Your task to perform on an android device: open wifi settings Image 0: 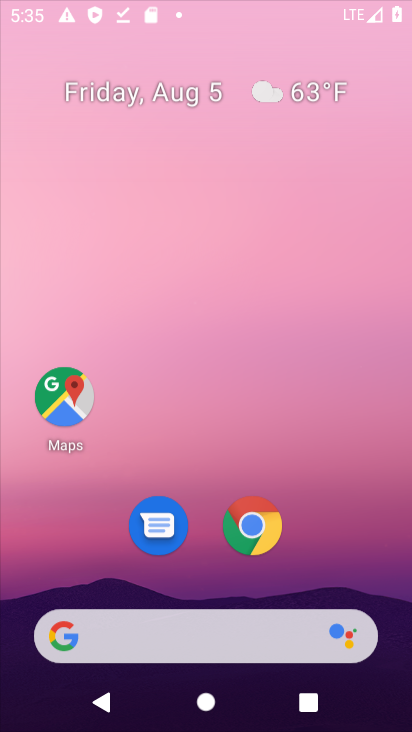
Step 0: drag from (194, 456) to (193, 233)
Your task to perform on an android device: open wifi settings Image 1: 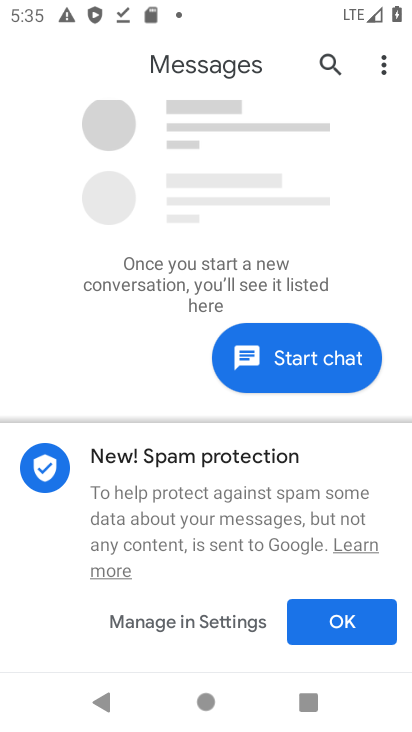
Step 1: drag from (216, 421) to (226, 124)
Your task to perform on an android device: open wifi settings Image 2: 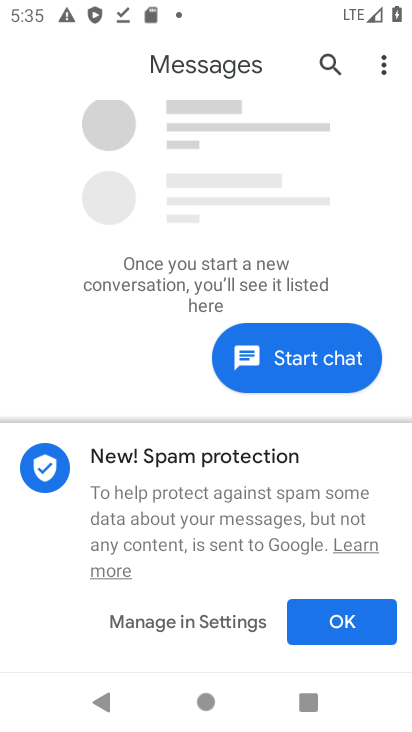
Step 2: press home button
Your task to perform on an android device: open wifi settings Image 3: 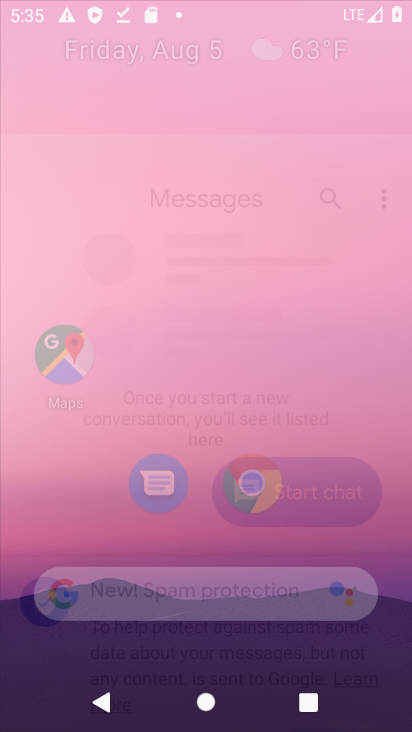
Step 3: click (189, 161)
Your task to perform on an android device: open wifi settings Image 4: 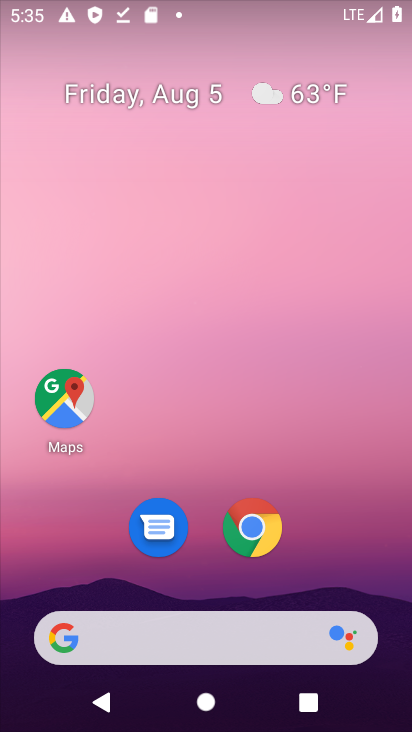
Step 4: drag from (231, 585) to (236, 276)
Your task to perform on an android device: open wifi settings Image 5: 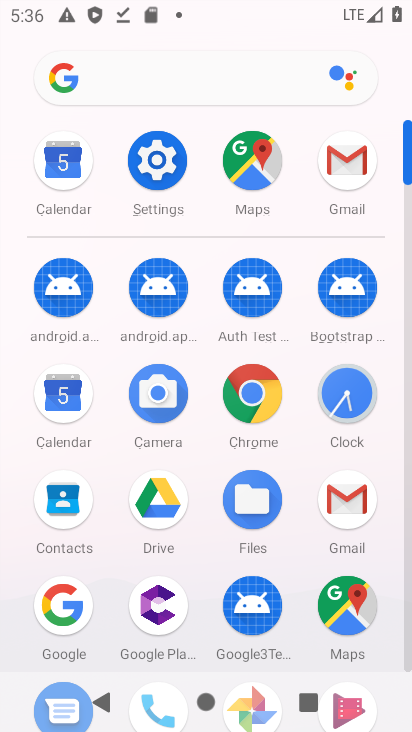
Step 5: click (159, 140)
Your task to perform on an android device: open wifi settings Image 6: 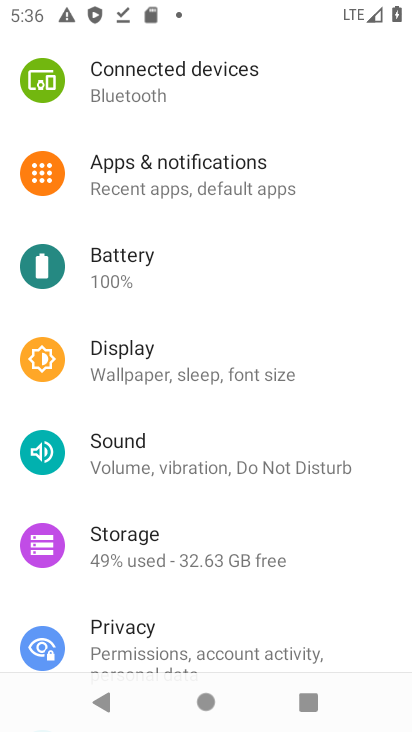
Step 6: drag from (210, 108) to (223, 553)
Your task to perform on an android device: open wifi settings Image 7: 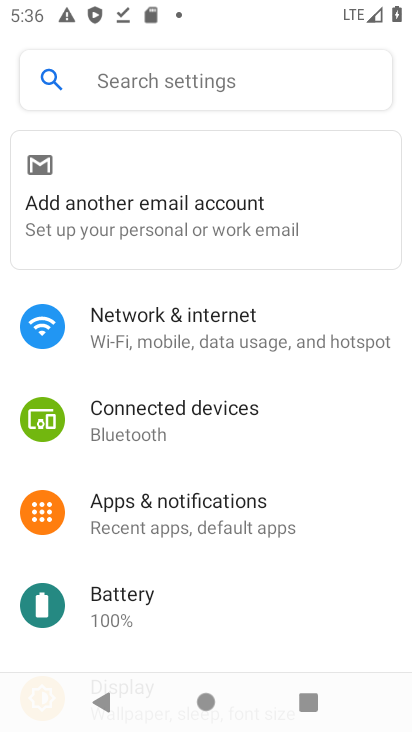
Step 7: click (168, 323)
Your task to perform on an android device: open wifi settings Image 8: 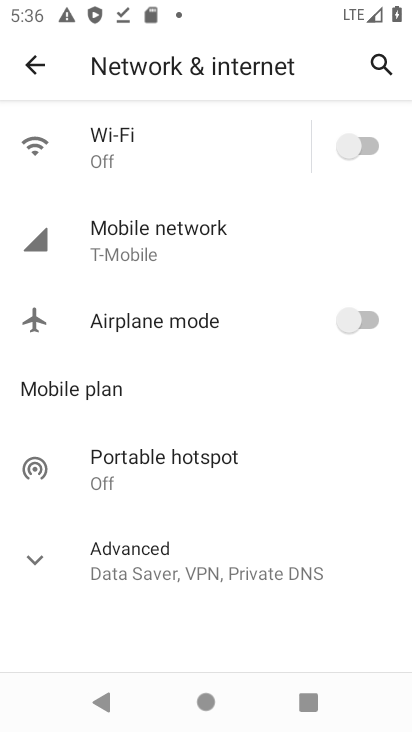
Step 8: click (168, 151)
Your task to perform on an android device: open wifi settings Image 9: 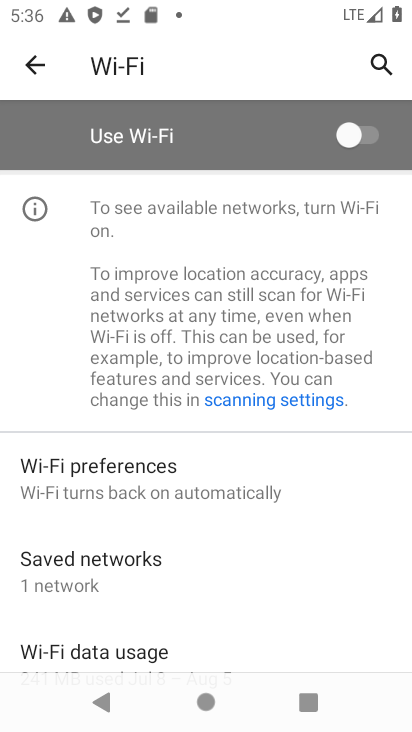
Step 9: task complete